Your task to perform on an android device: open app "Fetch Rewards" Image 0: 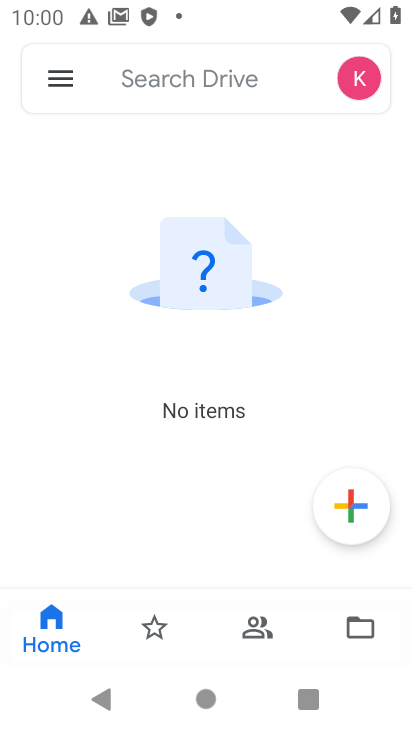
Step 0: press home button
Your task to perform on an android device: open app "Fetch Rewards" Image 1: 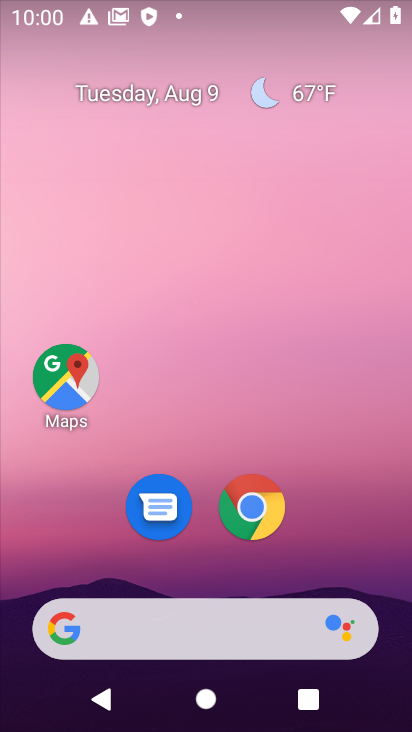
Step 1: drag from (208, 624) to (108, 47)
Your task to perform on an android device: open app "Fetch Rewards" Image 2: 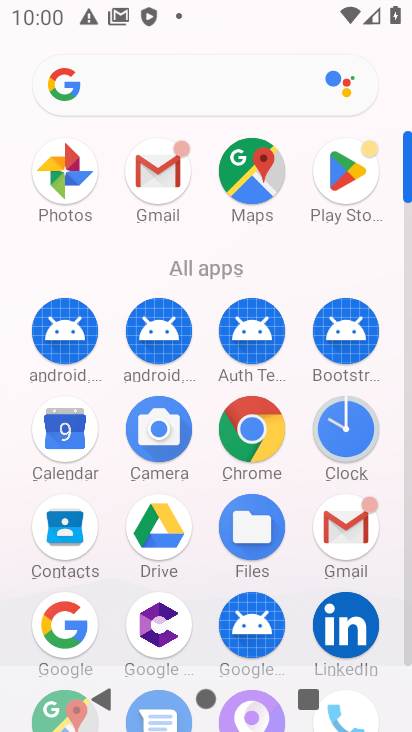
Step 2: click (345, 200)
Your task to perform on an android device: open app "Fetch Rewards" Image 3: 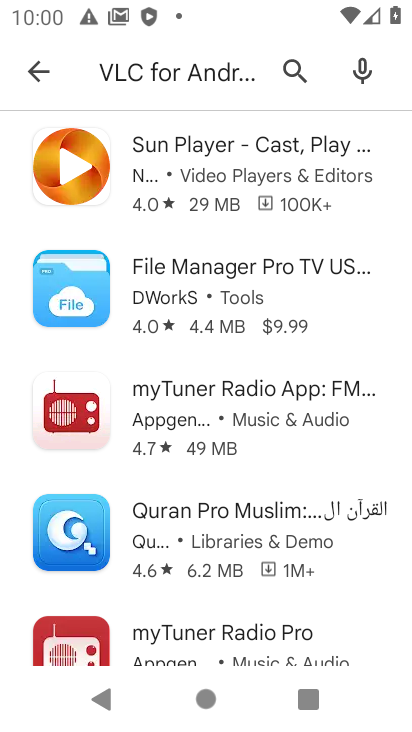
Step 3: click (28, 74)
Your task to perform on an android device: open app "Fetch Rewards" Image 4: 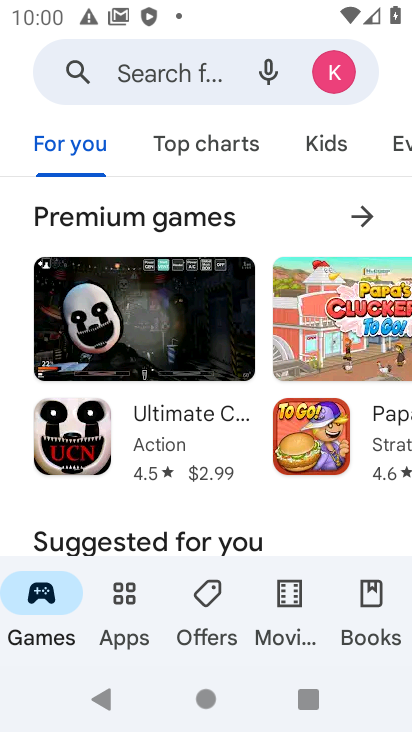
Step 4: click (191, 68)
Your task to perform on an android device: open app "Fetch Rewards" Image 5: 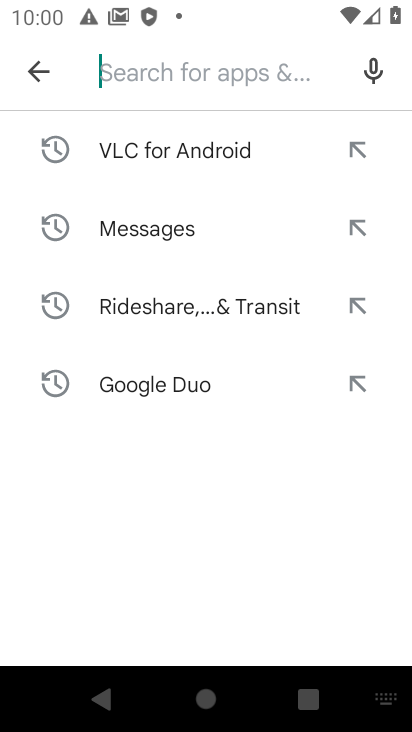
Step 5: type "Fetch Rewards"
Your task to perform on an android device: open app "Fetch Rewards" Image 6: 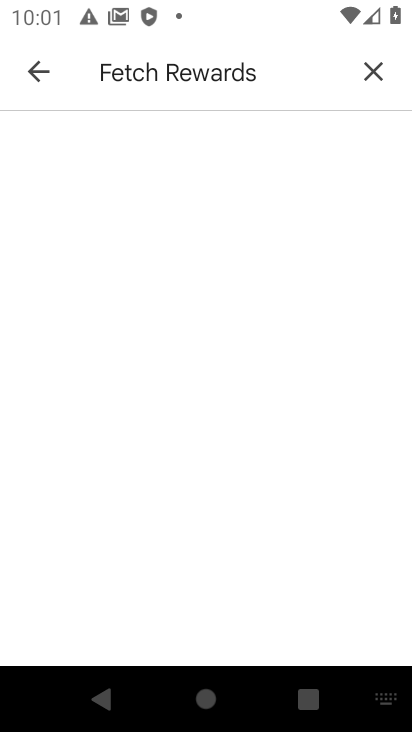
Step 6: press enter
Your task to perform on an android device: open app "Fetch Rewards" Image 7: 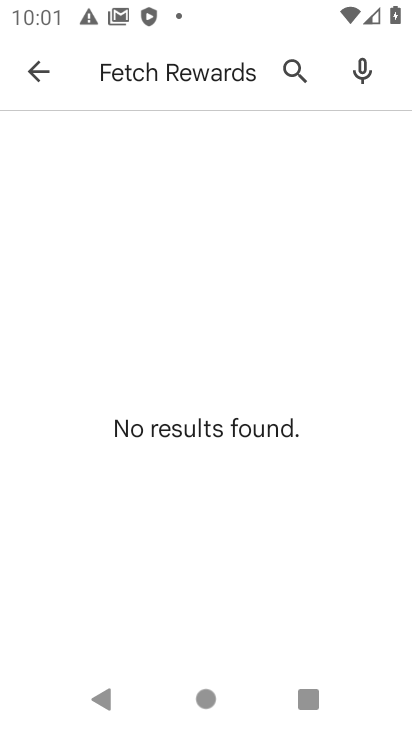
Step 7: press enter
Your task to perform on an android device: open app "Fetch Rewards" Image 8: 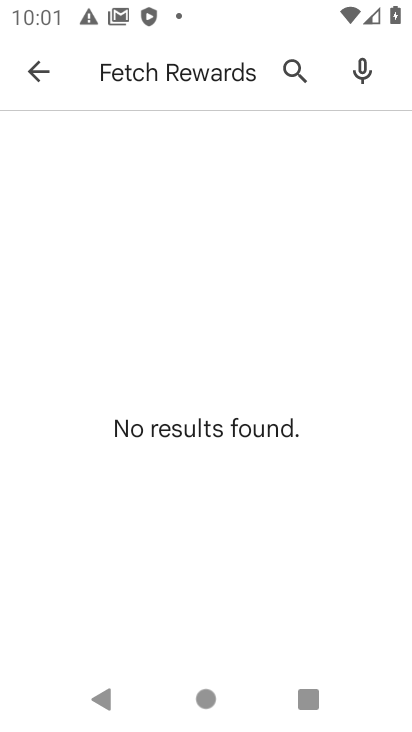
Step 8: press enter
Your task to perform on an android device: open app "Fetch Rewards" Image 9: 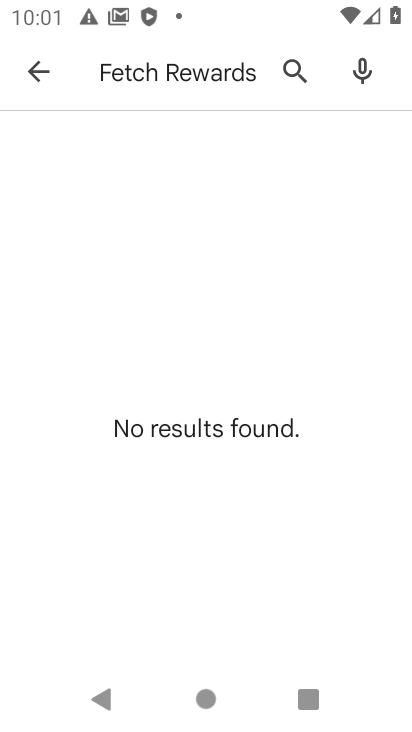
Step 9: task complete